Your task to perform on an android device: Open battery settings Image 0: 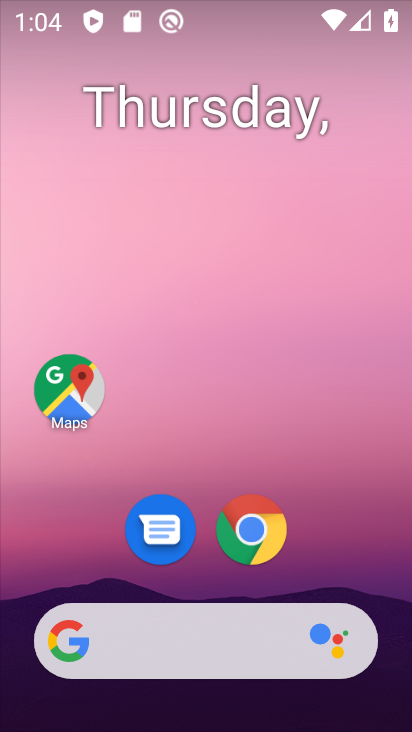
Step 0: drag from (368, 560) to (376, 158)
Your task to perform on an android device: Open battery settings Image 1: 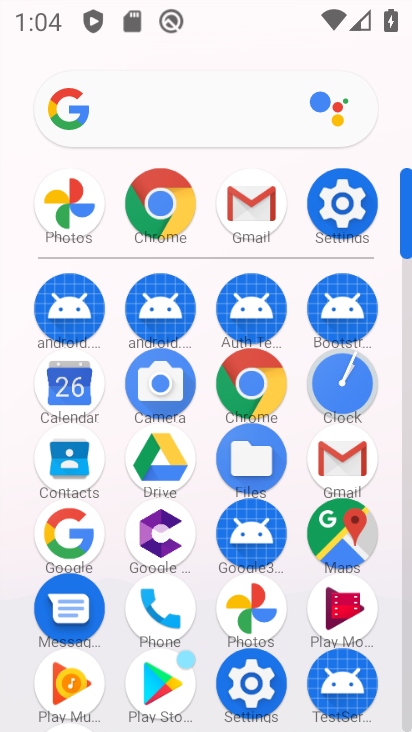
Step 1: click (353, 185)
Your task to perform on an android device: Open battery settings Image 2: 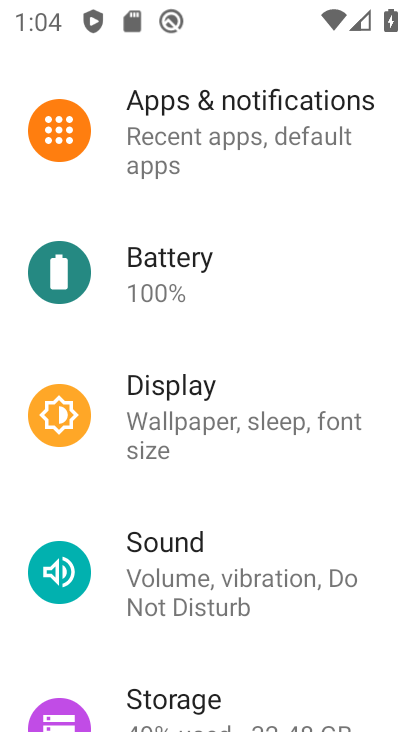
Step 2: click (231, 260)
Your task to perform on an android device: Open battery settings Image 3: 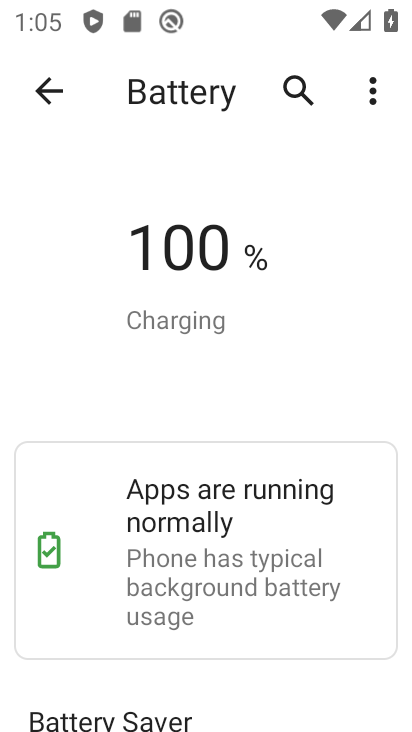
Step 3: task complete